Your task to perform on an android device: Is it going to rain tomorrow? Image 0: 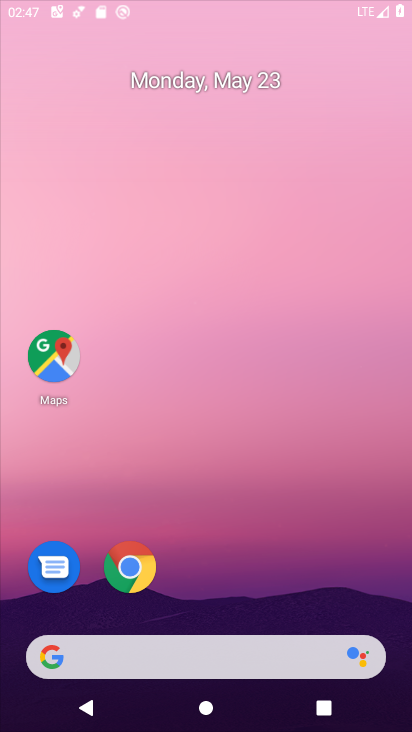
Step 0: drag from (276, 338) to (292, 264)
Your task to perform on an android device: Is it going to rain tomorrow? Image 1: 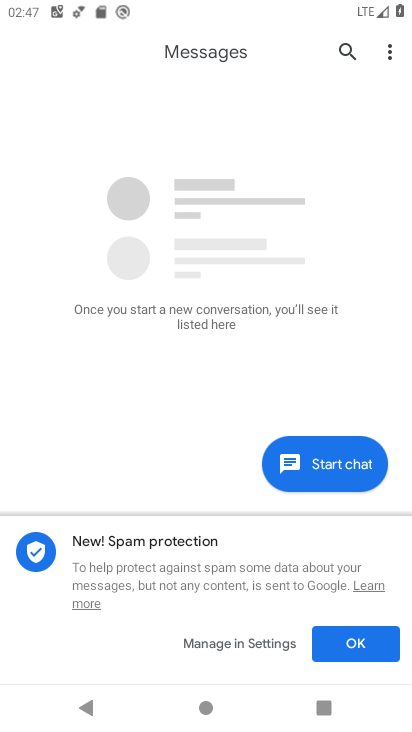
Step 1: press home button
Your task to perform on an android device: Is it going to rain tomorrow? Image 2: 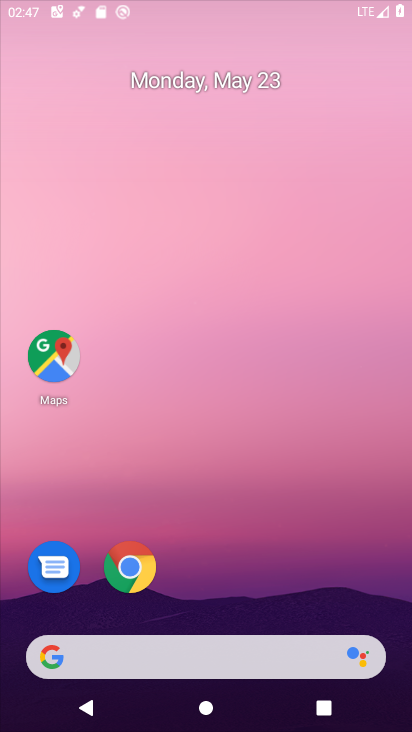
Step 2: drag from (259, 590) to (267, 132)
Your task to perform on an android device: Is it going to rain tomorrow? Image 3: 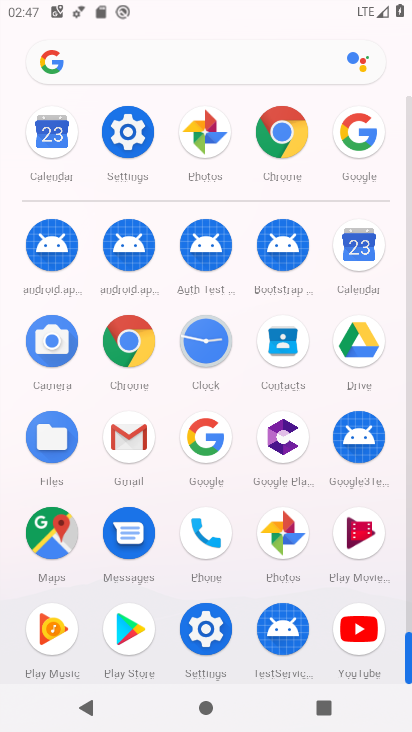
Step 3: click (209, 440)
Your task to perform on an android device: Is it going to rain tomorrow? Image 4: 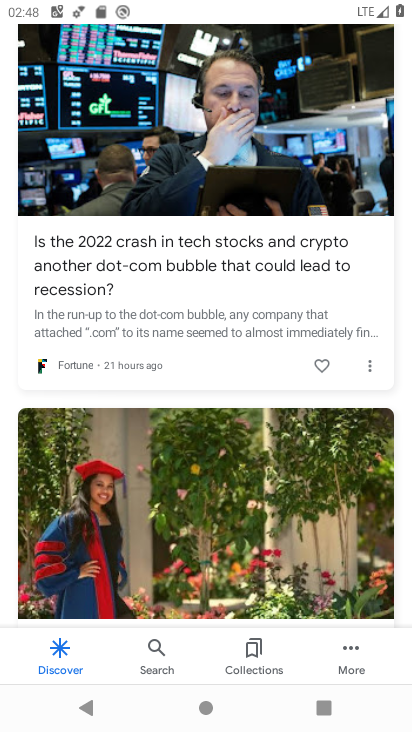
Step 4: click (62, 654)
Your task to perform on an android device: Is it going to rain tomorrow? Image 5: 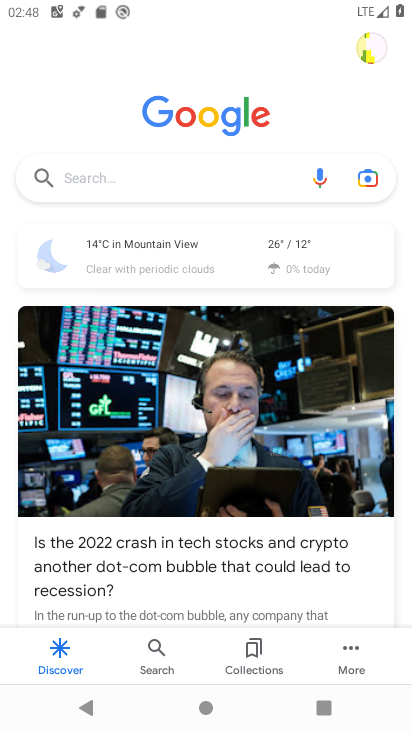
Step 5: drag from (175, 205) to (178, 416)
Your task to perform on an android device: Is it going to rain tomorrow? Image 6: 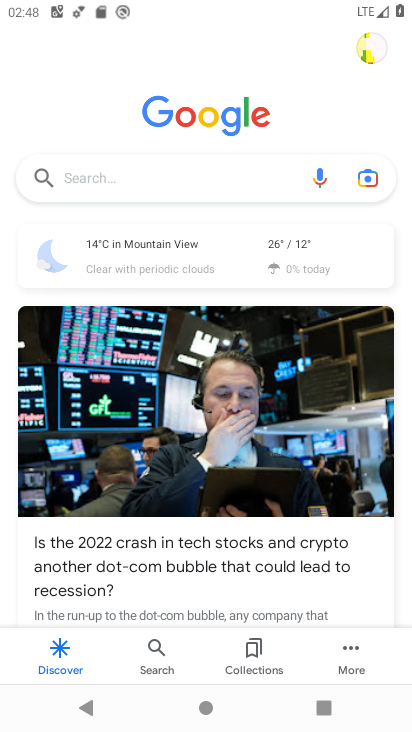
Step 6: click (173, 259)
Your task to perform on an android device: Is it going to rain tomorrow? Image 7: 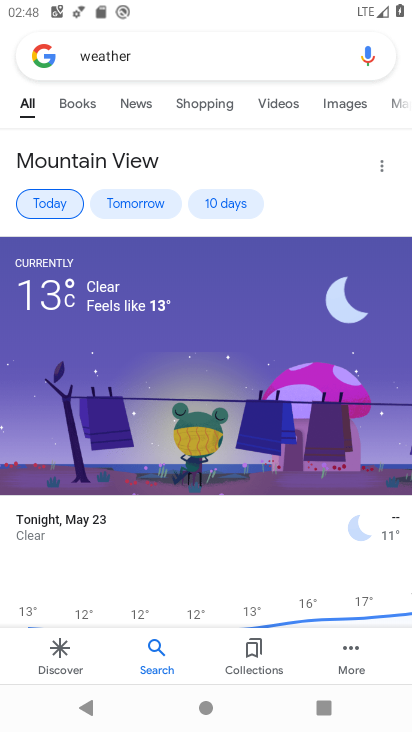
Step 7: click (148, 204)
Your task to perform on an android device: Is it going to rain tomorrow? Image 8: 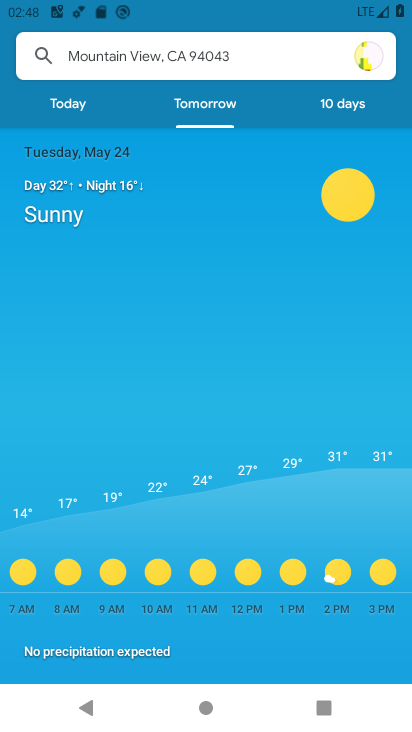
Step 8: task complete